Your task to perform on an android device: Go to privacy settings Image 0: 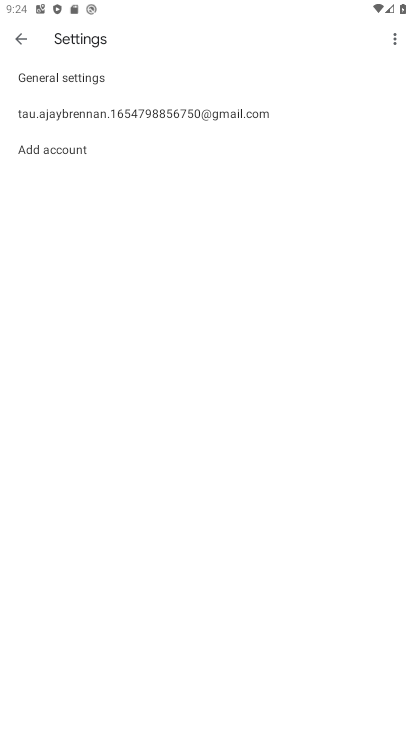
Step 0: press home button
Your task to perform on an android device: Go to privacy settings Image 1: 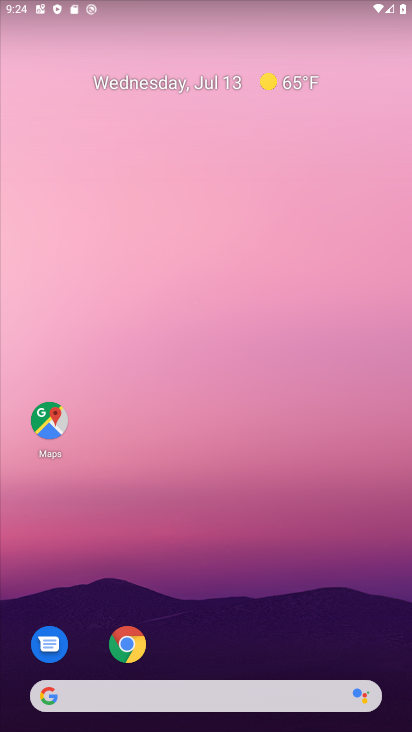
Step 1: drag from (246, 574) to (219, 1)
Your task to perform on an android device: Go to privacy settings Image 2: 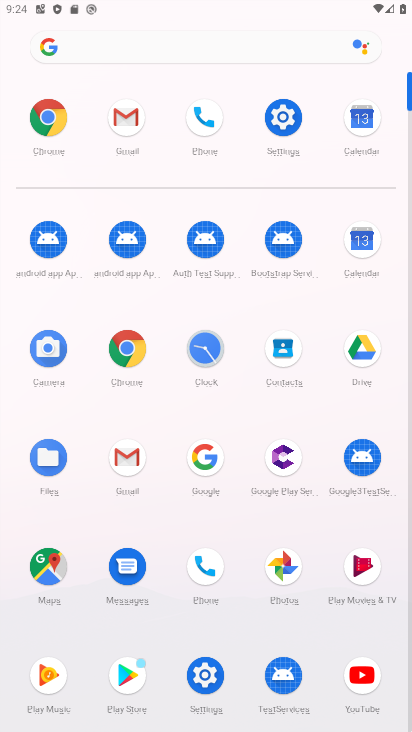
Step 2: click (281, 110)
Your task to perform on an android device: Go to privacy settings Image 3: 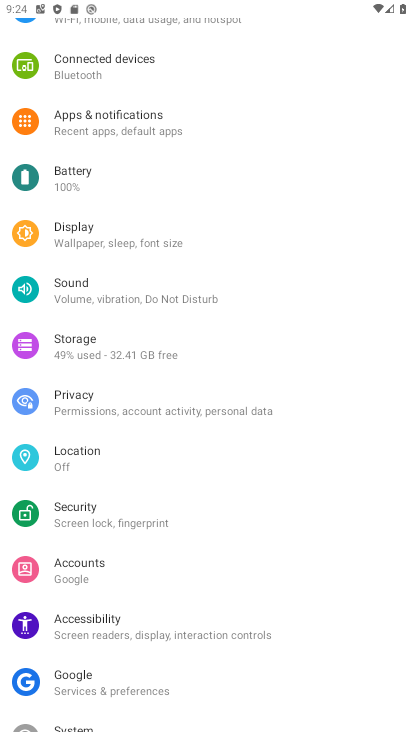
Step 3: click (75, 401)
Your task to perform on an android device: Go to privacy settings Image 4: 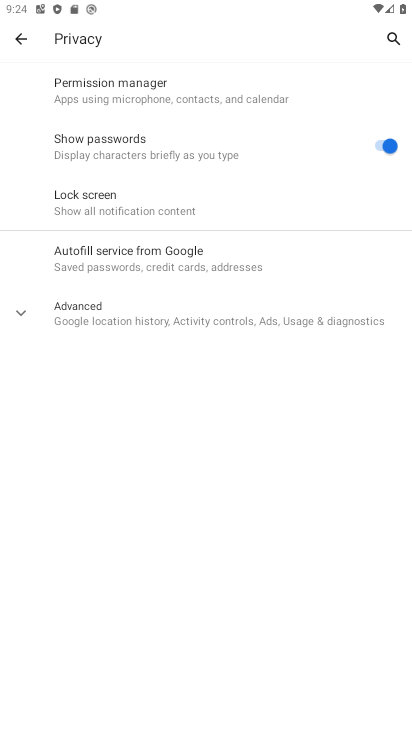
Step 4: task complete